Your task to perform on an android device: toggle airplane mode Image 0: 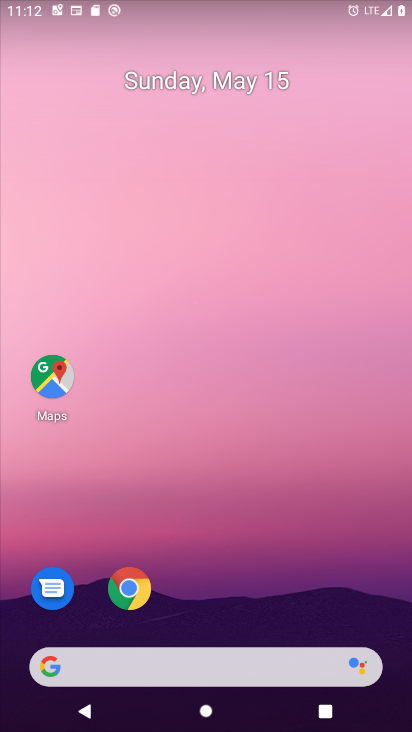
Step 0: drag from (196, 550) to (287, 171)
Your task to perform on an android device: toggle airplane mode Image 1: 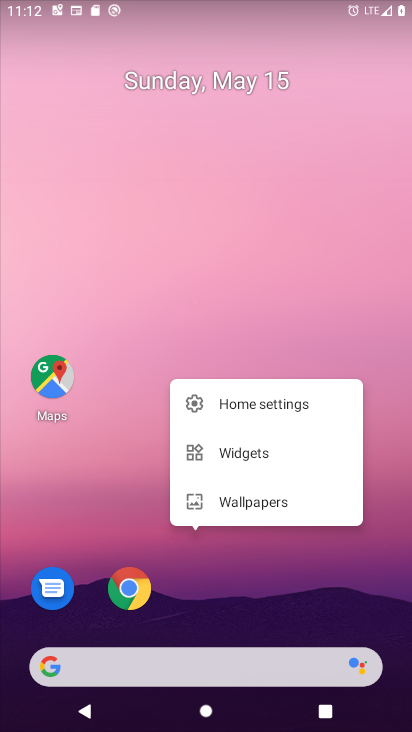
Step 1: click (287, 171)
Your task to perform on an android device: toggle airplane mode Image 2: 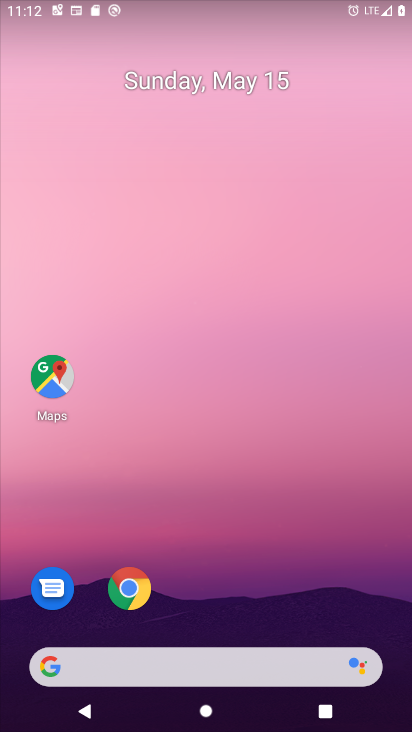
Step 2: drag from (238, 520) to (233, 115)
Your task to perform on an android device: toggle airplane mode Image 3: 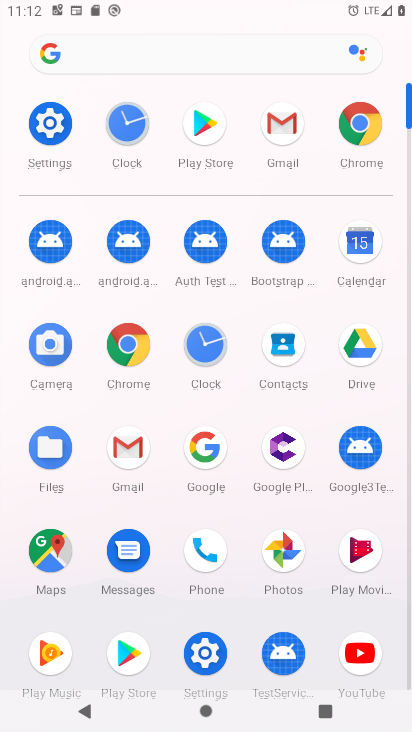
Step 3: click (44, 120)
Your task to perform on an android device: toggle airplane mode Image 4: 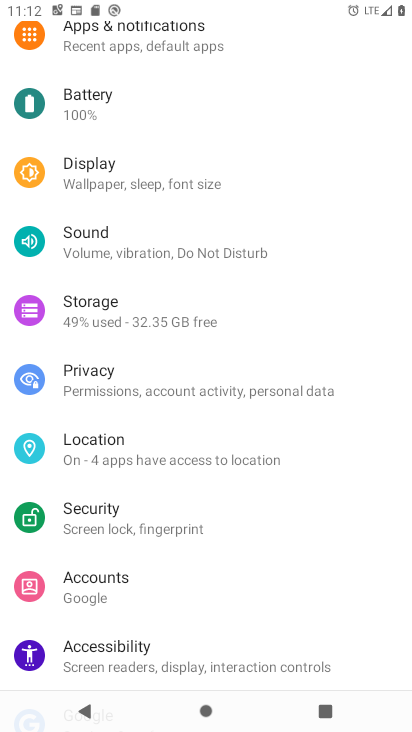
Step 4: drag from (159, 55) to (149, 528)
Your task to perform on an android device: toggle airplane mode Image 5: 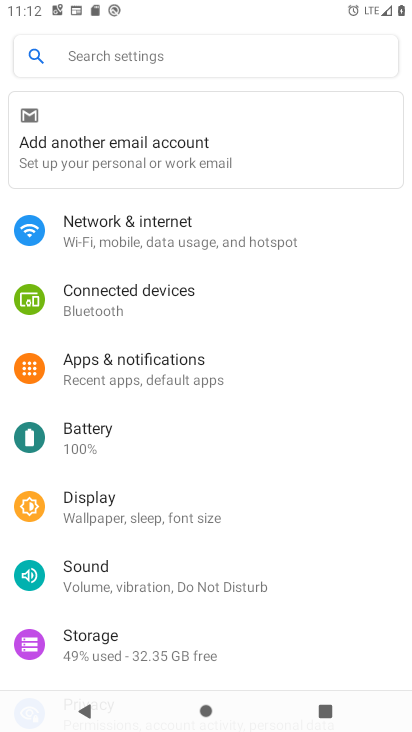
Step 5: click (191, 228)
Your task to perform on an android device: toggle airplane mode Image 6: 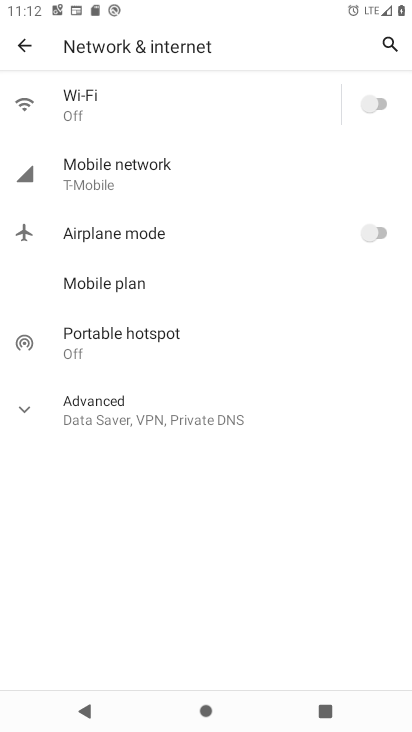
Step 6: click (386, 107)
Your task to perform on an android device: toggle airplane mode Image 7: 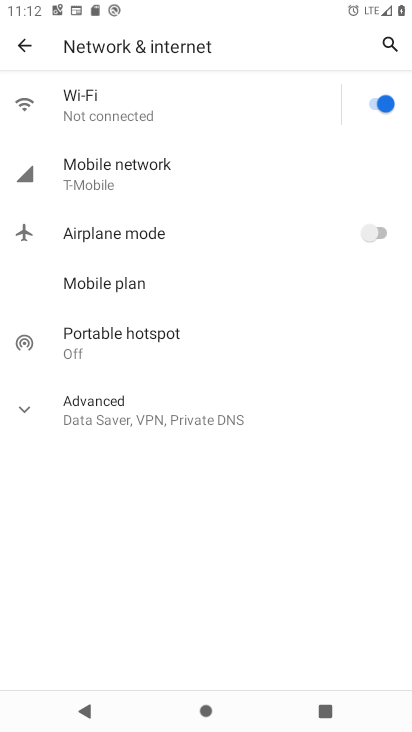
Step 7: task complete